Your task to perform on an android device: Open battery settings Image 0: 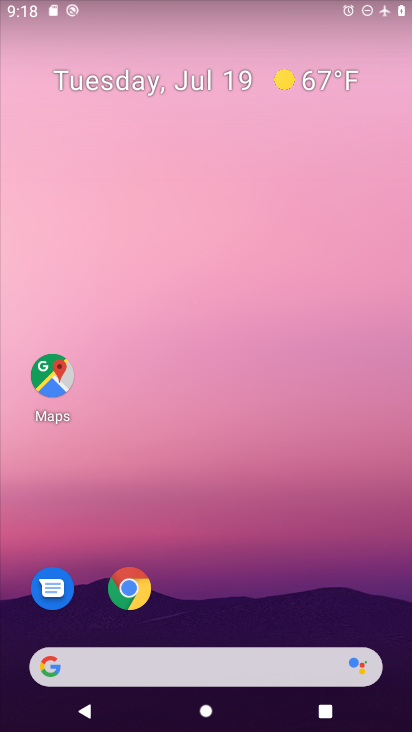
Step 0: drag from (368, 608) to (364, 82)
Your task to perform on an android device: Open battery settings Image 1: 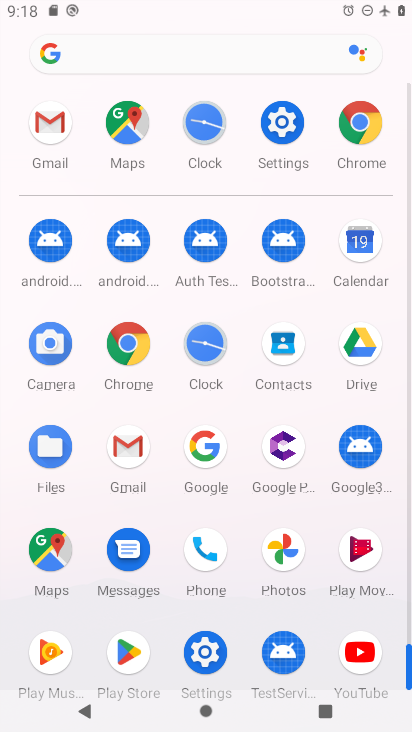
Step 1: click (285, 133)
Your task to perform on an android device: Open battery settings Image 2: 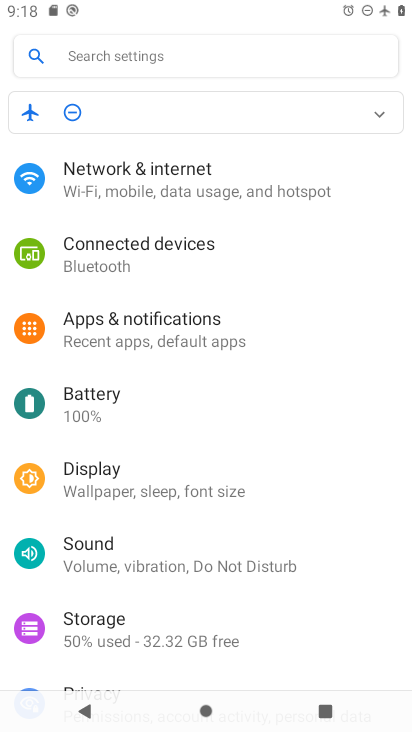
Step 2: drag from (330, 470) to (339, 327)
Your task to perform on an android device: Open battery settings Image 3: 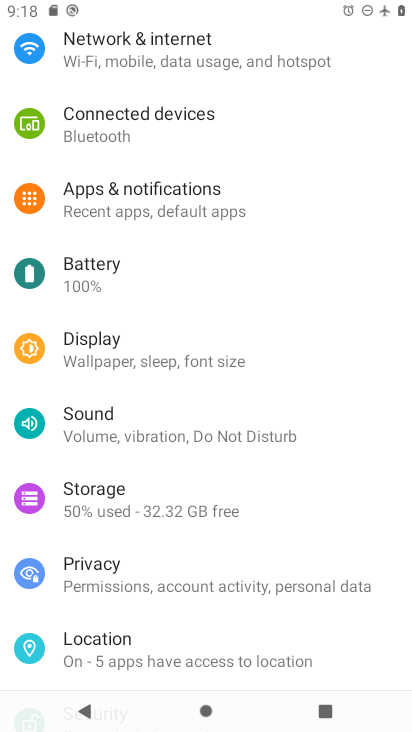
Step 3: drag from (352, 472) to (373, 337)
Your task to perform on an android device: Open battery settings Image 4: 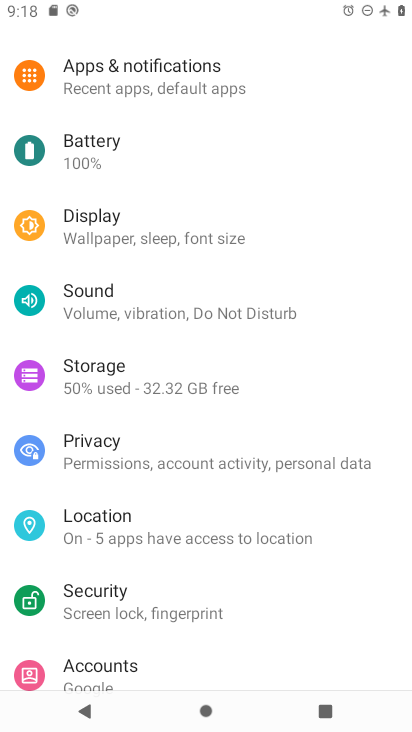
Step 4: drag from (349, 514) to (384, 317)
Your task to perform on an android device: Open battery settings Image 5: 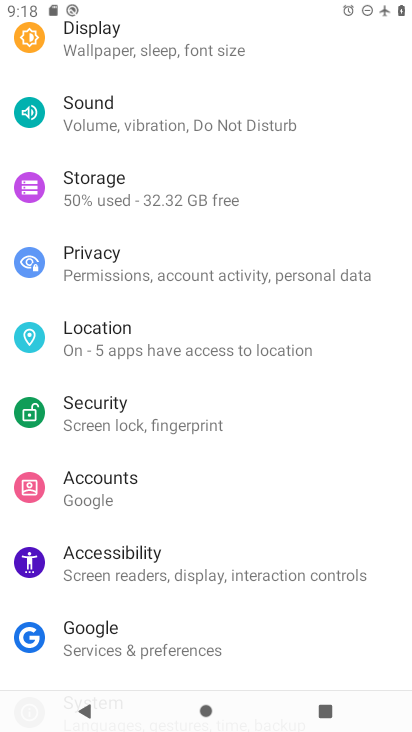
Step 5: drag from (385, 461) to (392, 335)
Your task to perform on an android device: Open battery settings Image 6: 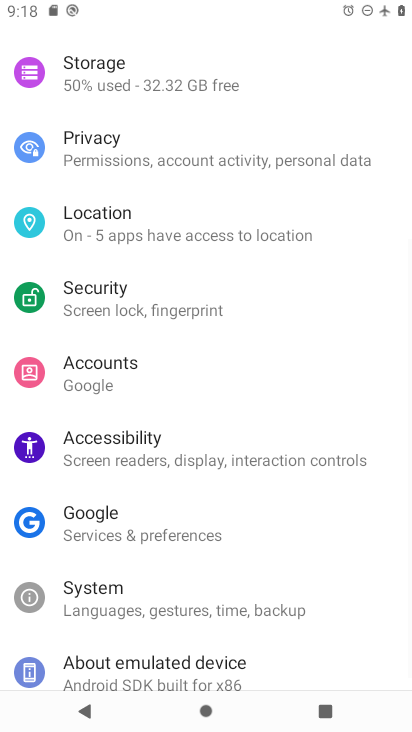
Step 6: drag from (364, 462) to (385, 362)
Your task to perform on an android device: Open battery settings Image 7: 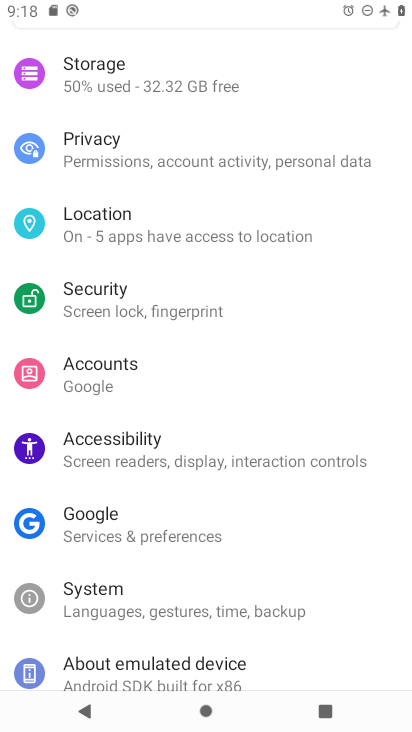
Step 7: drag from (380, 541) to (377, 382)
Your task to perform on an android device: Open battery settings Image 8: 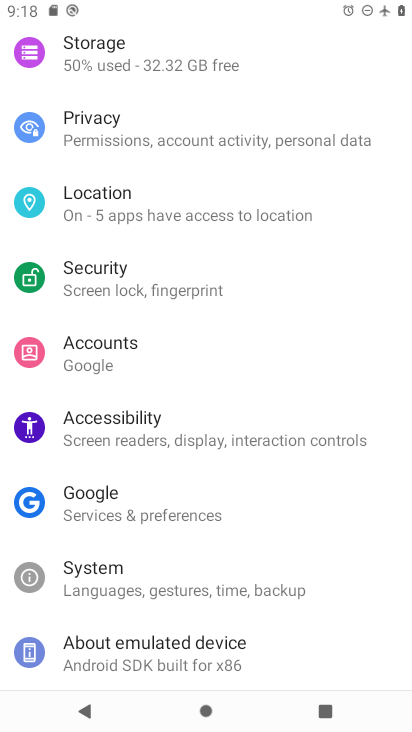
Step 8: drag from (319, 262) to (330, 416)
Your task to perform on an android device: Open battery settings Image 9: 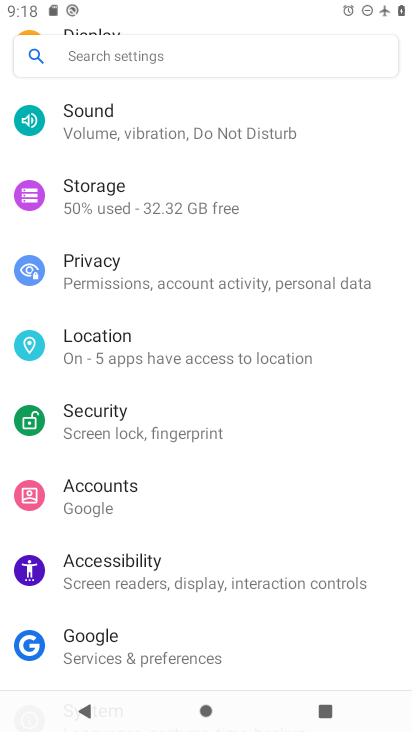
Step 9: drag from (349, 271) to (353, 418)
Your task to perform on an android device: Open battery settings Image 10: 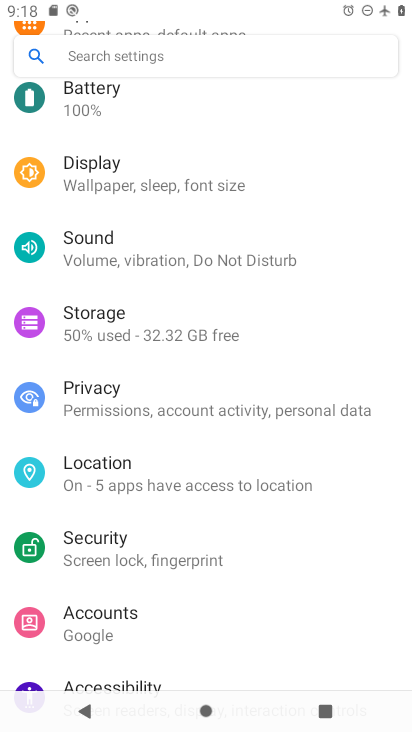
Step 10: drag from (358, 274) to (361, 389)
Your task to perform on an android device: Open battery settings Image 11: 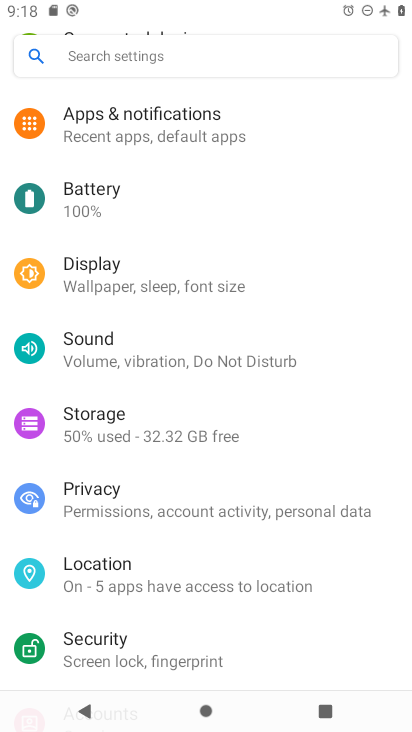
Step 11: drag from (346, 192) to (340, 322)
Your task to perform on an android device: Open battery settings Image 12: 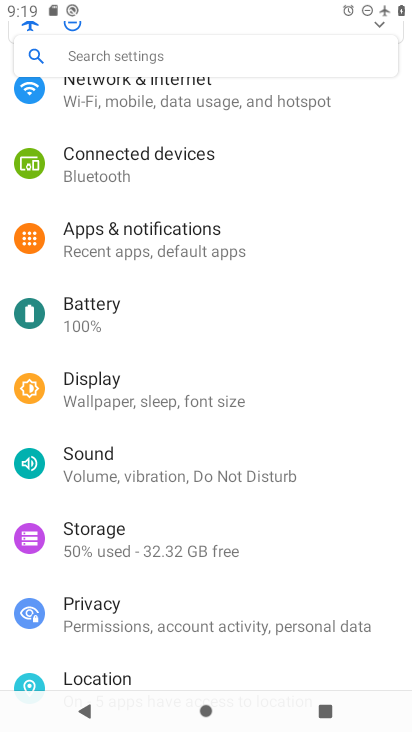
Step 12: click (130, 319)
Your task to perform on an android device: Open battery settings Image 13: 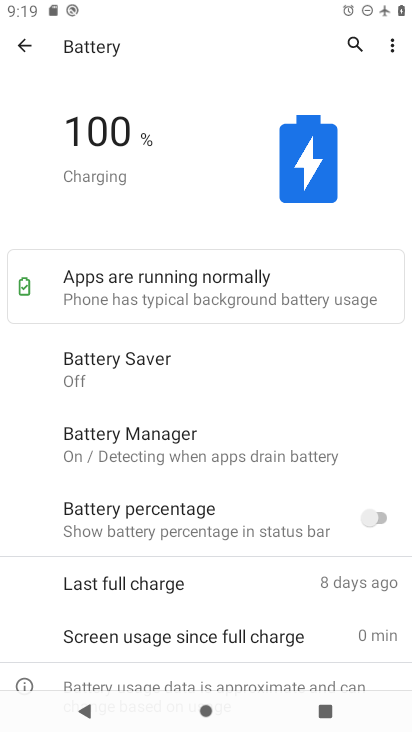
Step 13: task complete